Your task to perform on an android device: Open Google Maps and go to "Timeline" Image 0: 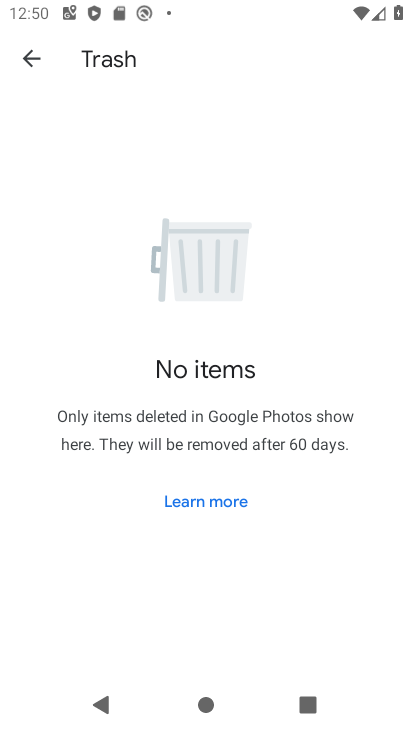
Step 0: press home button
Your task to perform on an android device: Open Google Maps and go to "Timeline" Image 1: 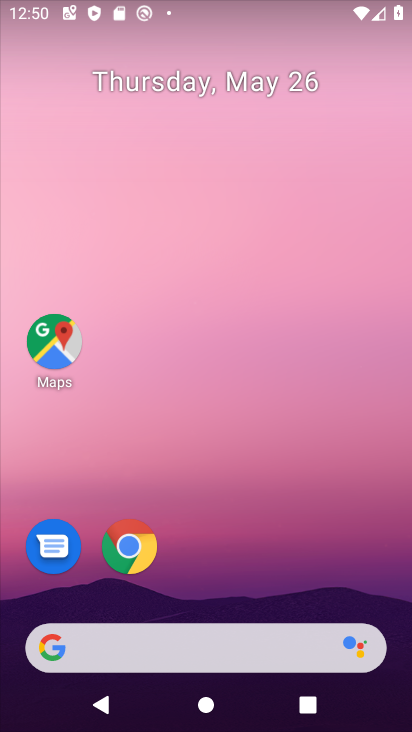
Step 1: click (49, 362)
Your task to perform on an android device: Open Google Maps and go to "Timeline" Image 2: 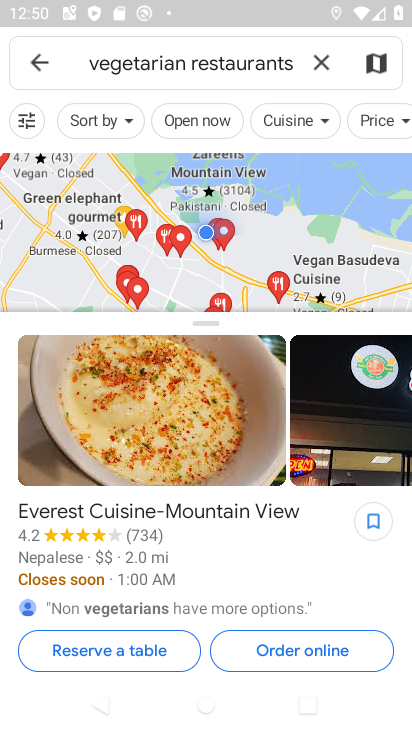
Step 2: click (33, 79)
Your task to perform on an android device: Open Google Maps and go to "Timeline" Image 3: 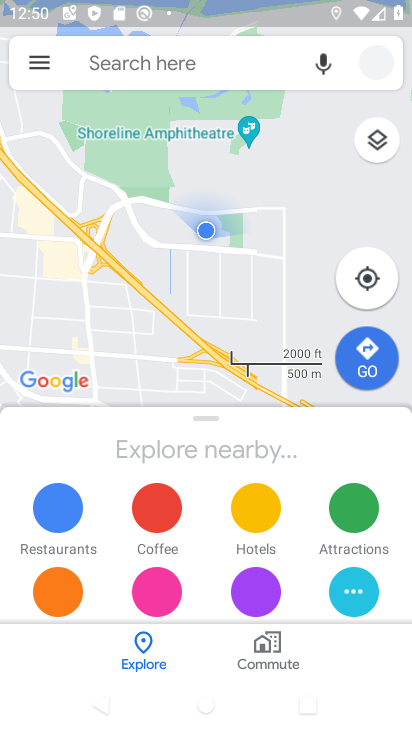
Step 3: click (31, 70)
Your task to perform on an android device: Open Google Maps and go to "Timeline" Image 4: 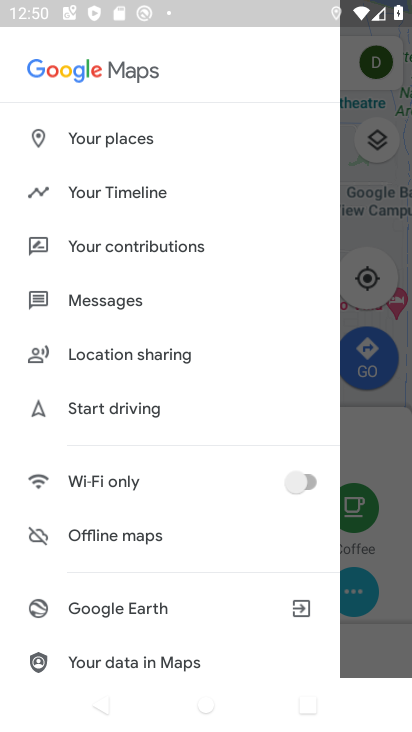
Step 4: click (97, 195)
Your task to perform on an android device: Open Google Maps and go to "Timeline" Image 5: 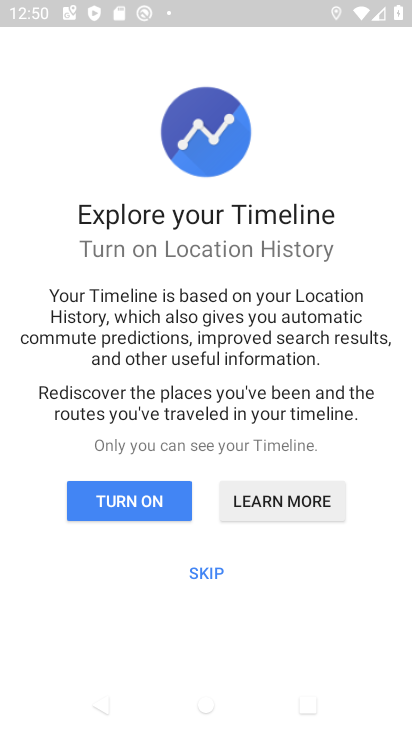
Step 5: click (203, 566)
Your task to perform on an android device: Open Google Maps and go to "Timeline" Image 6: 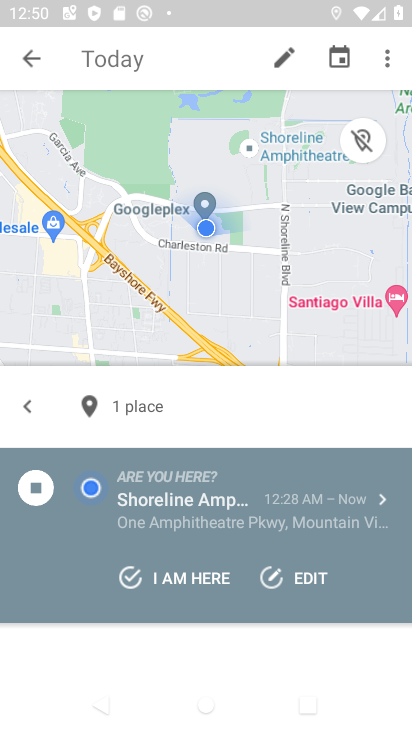
Step 6: task complete